Your task to perform on an android device: toggle translation in the chrome app Image 0: 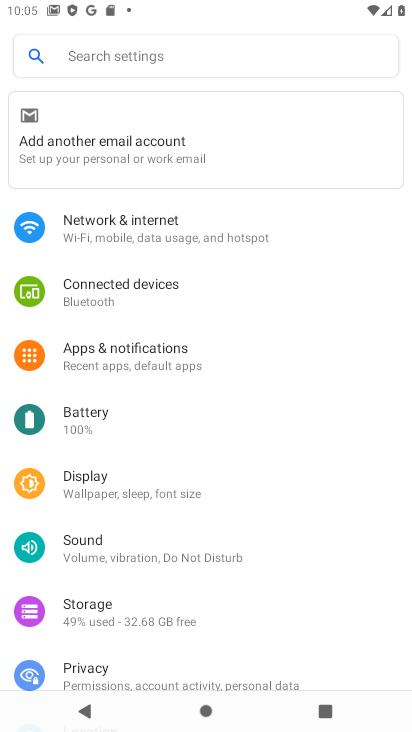
Step 0: press home button
Your task to perform on an android device: toggle translation in the chrome app Image 1: 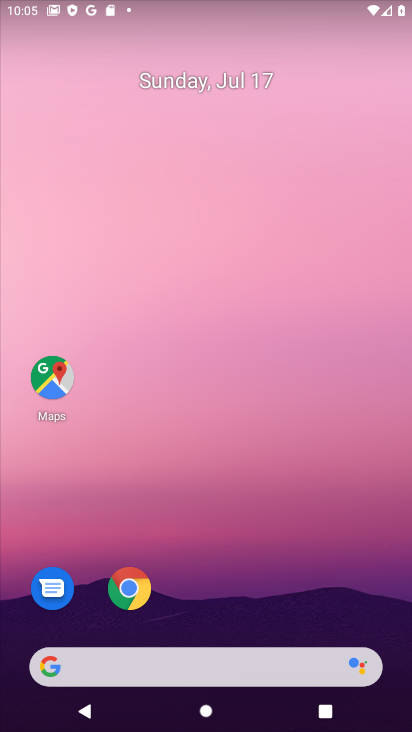
Step 1: click (128, 598)
Your task to perform on an android device: toggle translation in the chrome app Image 2: 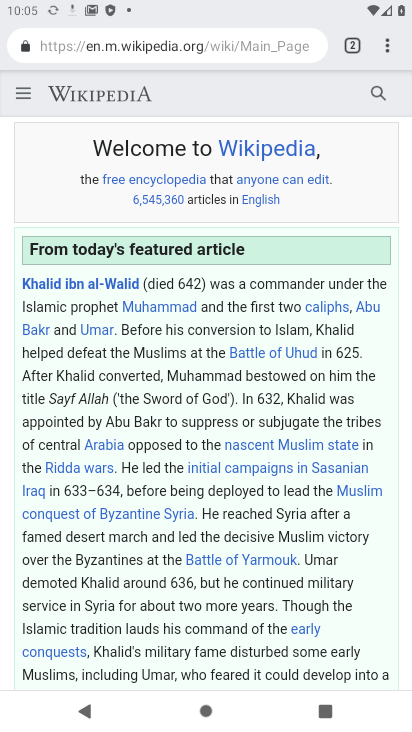
Step 2: click (388, 44)
Your task to perform on an android device: toggle translation in the chrome app Image 3: 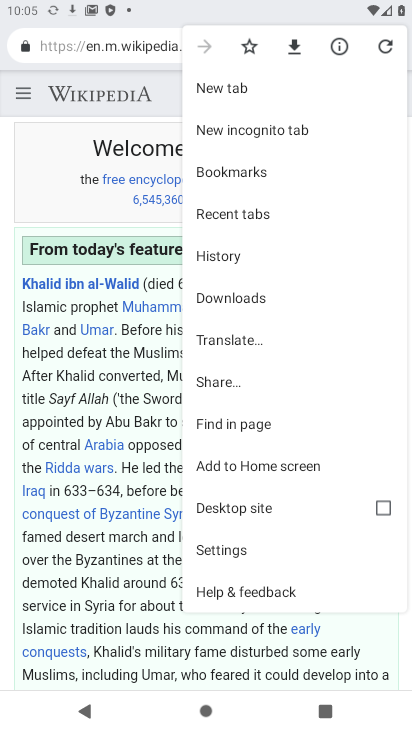
Step 3: click (269, 550)
Your task to perform on an android device: toggle translation in the chrome app Image 4: 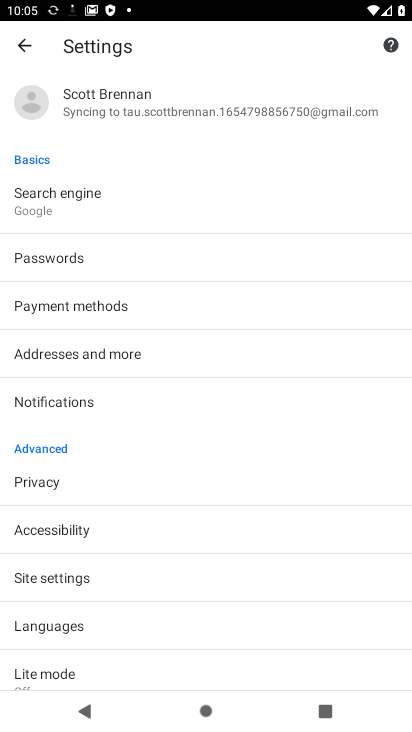
Step 4: click (128, 630)
Your task to perform on an android device: toggle translation in the chrome app Image 5: 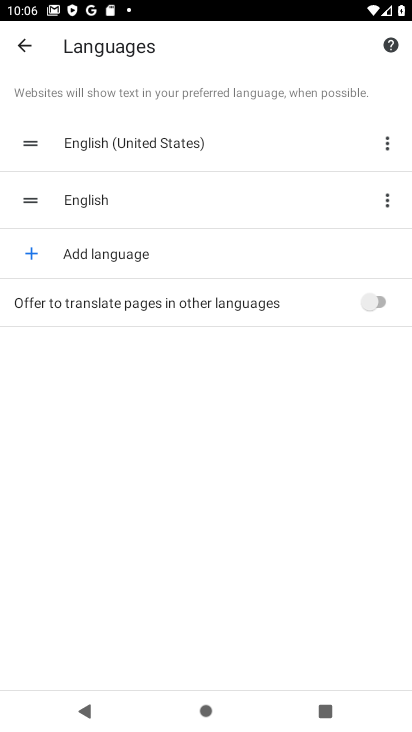
Step 5: click (387, 297)
Your task to perform on an android device: toggle translation in the chrome app Image 6: 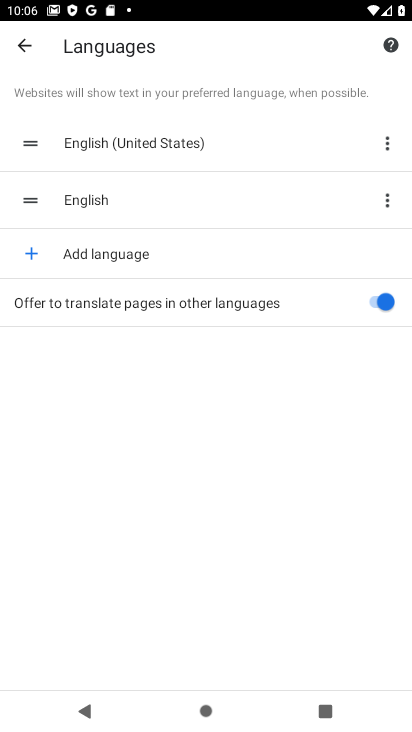
Step 6: task complete